Your task to perform on an android device: snooze an email in the gmail app Image 0: 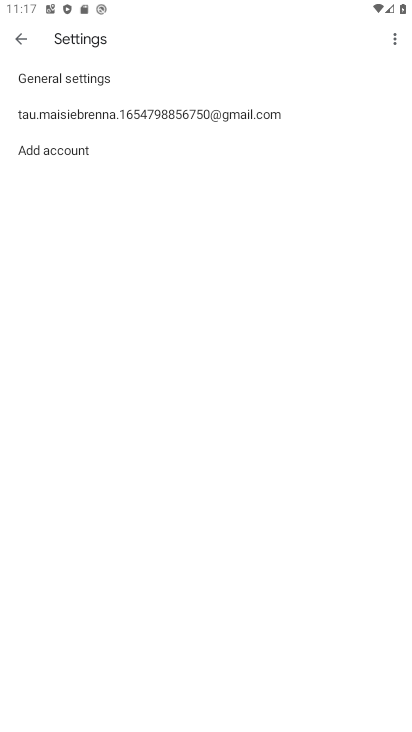
Step 0: click (25, 32)
Your task to perform on an android device: snooze an email in the gmail app Image 1: 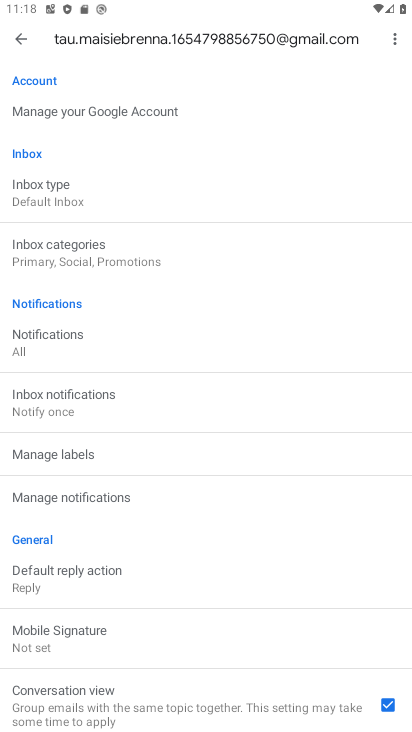
Step 1: click (17, 40)
Your task to perform on an android device: snooze an email in the gmail app Image 2: 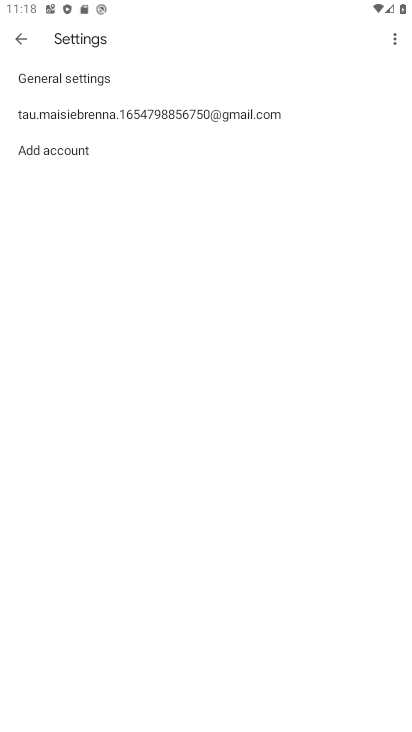
Step 2: click (17, 40)
Your task to perform on an android device: snooze an email in the gmail app Image 3: 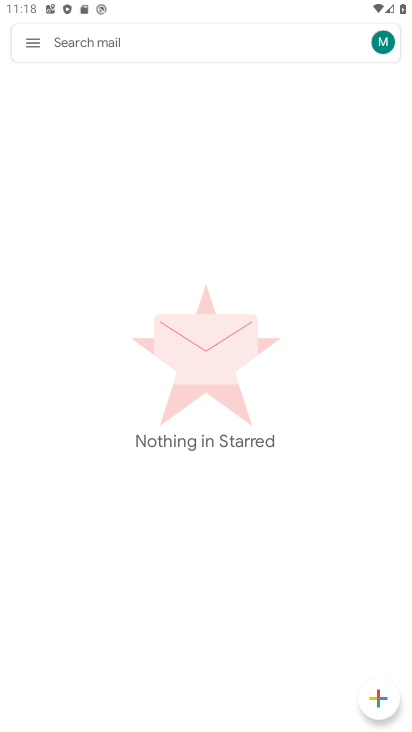
Step 3: click (36, 43)
Your task to perform on an android device: snooze an email in the gmail app Image 4: 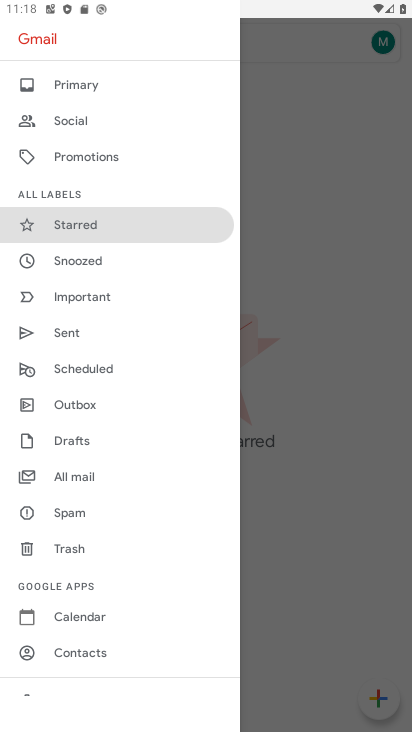
Step 4: click (77, 477)
Your task to perform on an android device: snooze an email in the gmail app Image 5: 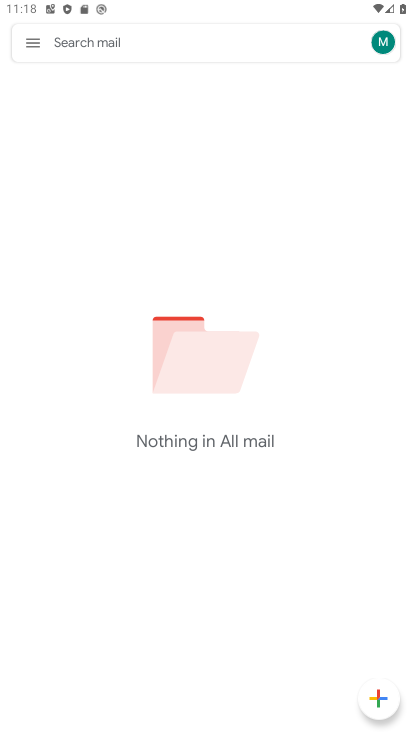
Step 5: task complete